Your task to perform on an android device: turn off airplane mode Image 0: 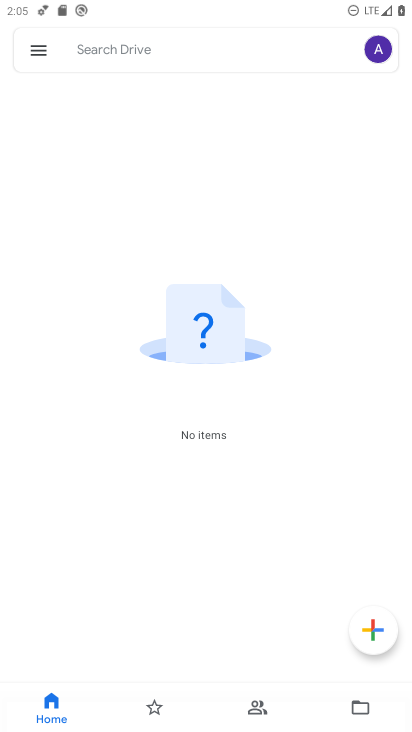
Step 0: press home button
Your task to perform on an android device: turn off airplane mode Image 1: 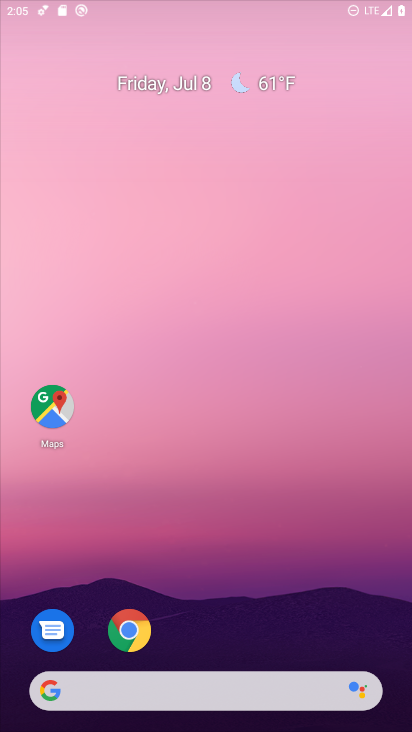
Step 1: task complete